Your task to perform on an android device: turn pop-ups off in chrome Image 0: 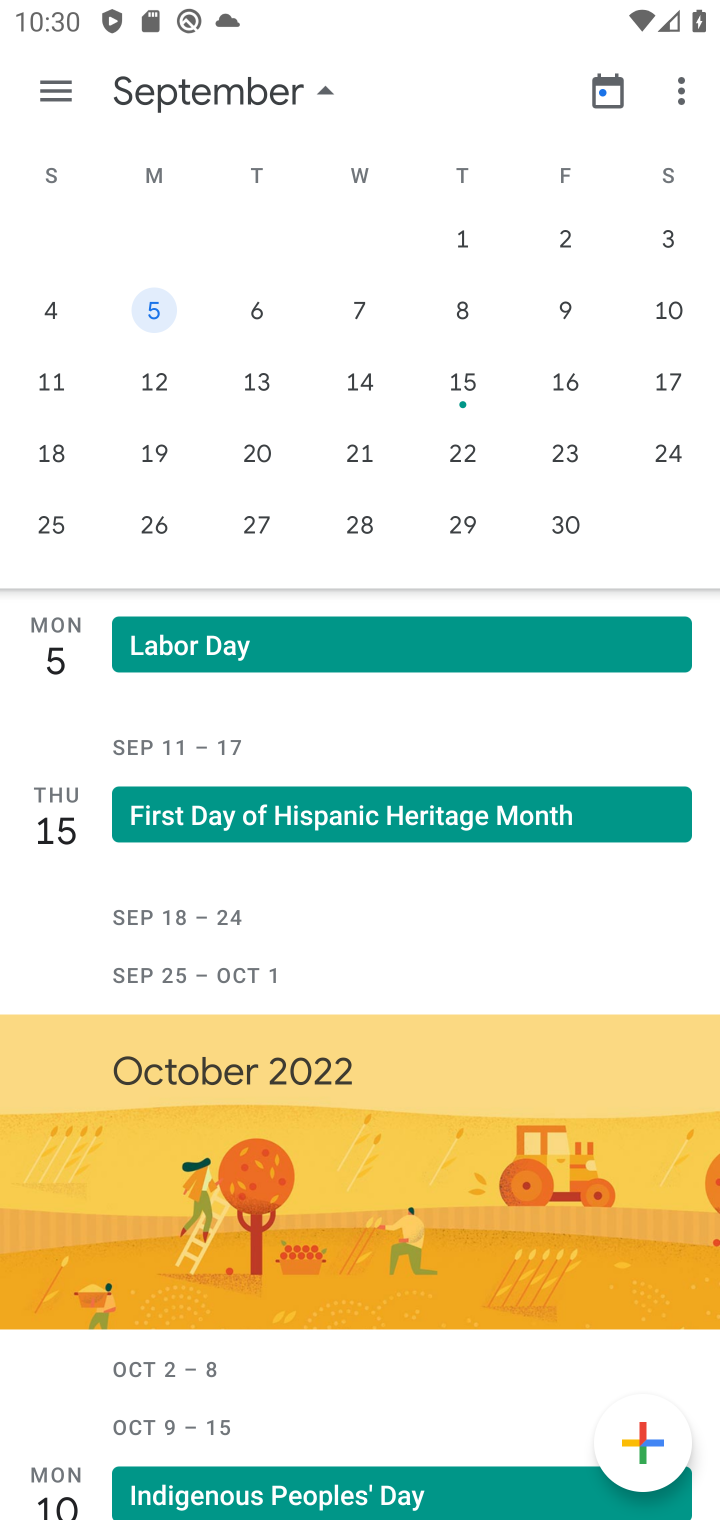
Step 0: press home button
Your task to perform on an android device: turn pop-ups off in chrome Image 1: 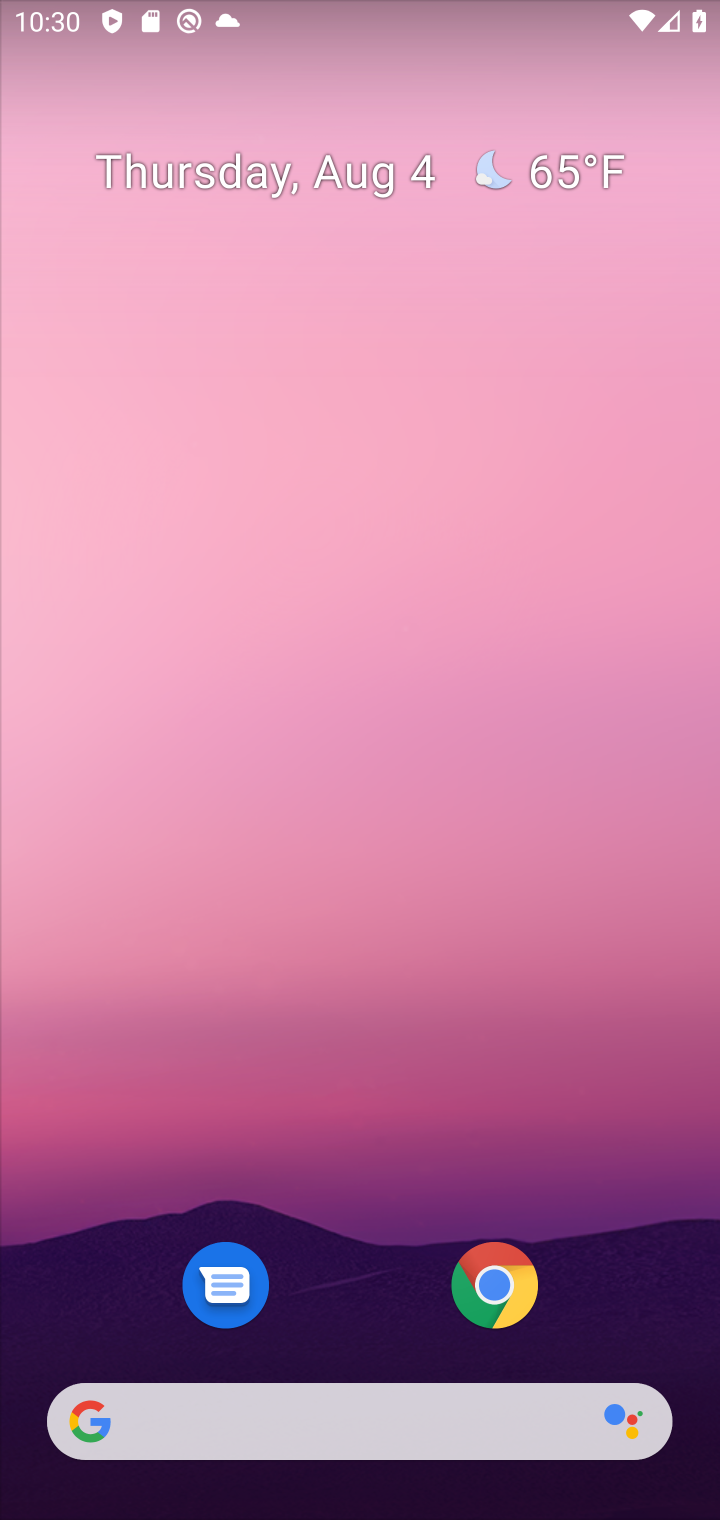
Step 1: drag from (373, 1284) to (395, 579)
Your task to perform on an android device: turn pop-ups off in chrome Image 2: 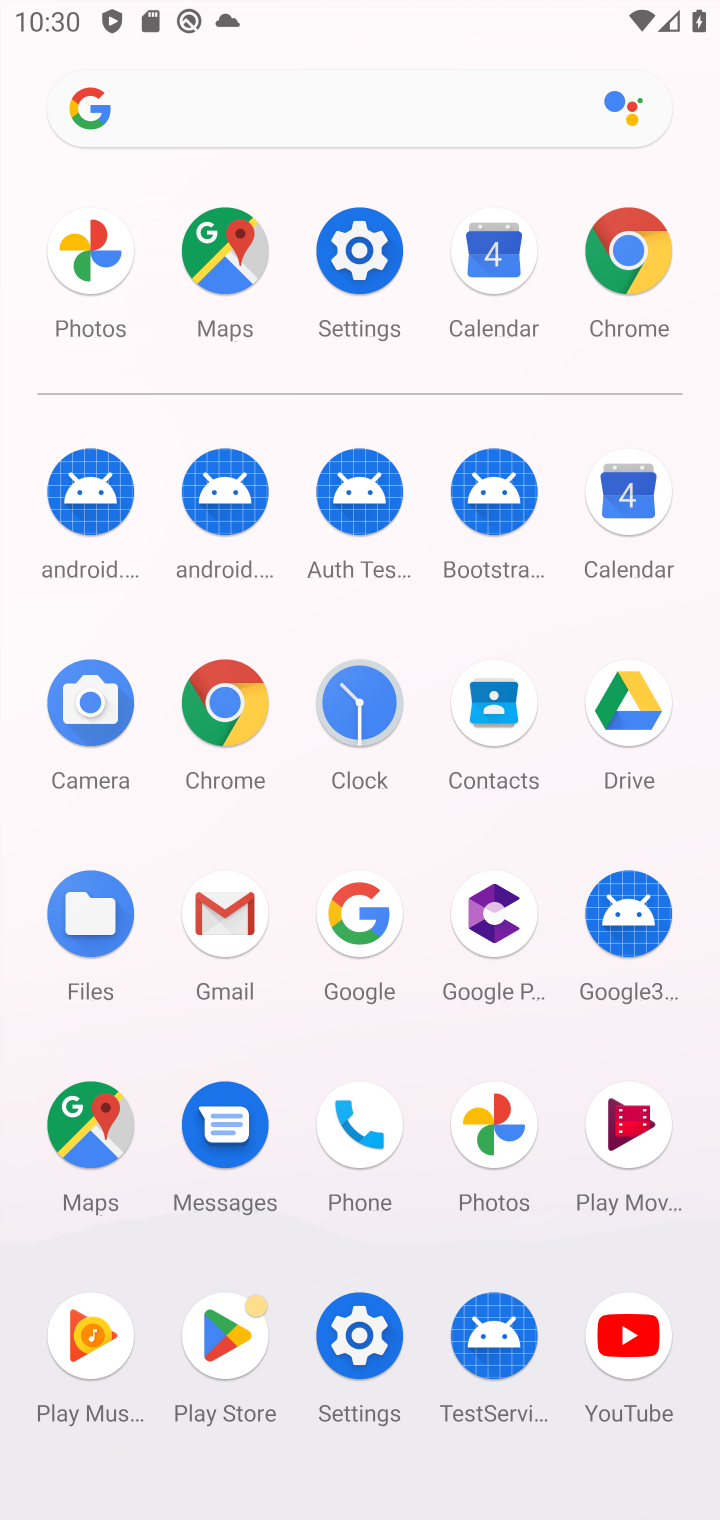
Step 2: click (229, 683)
Your task to perform on an android device: turn pop-ups off in chrome Image 3: 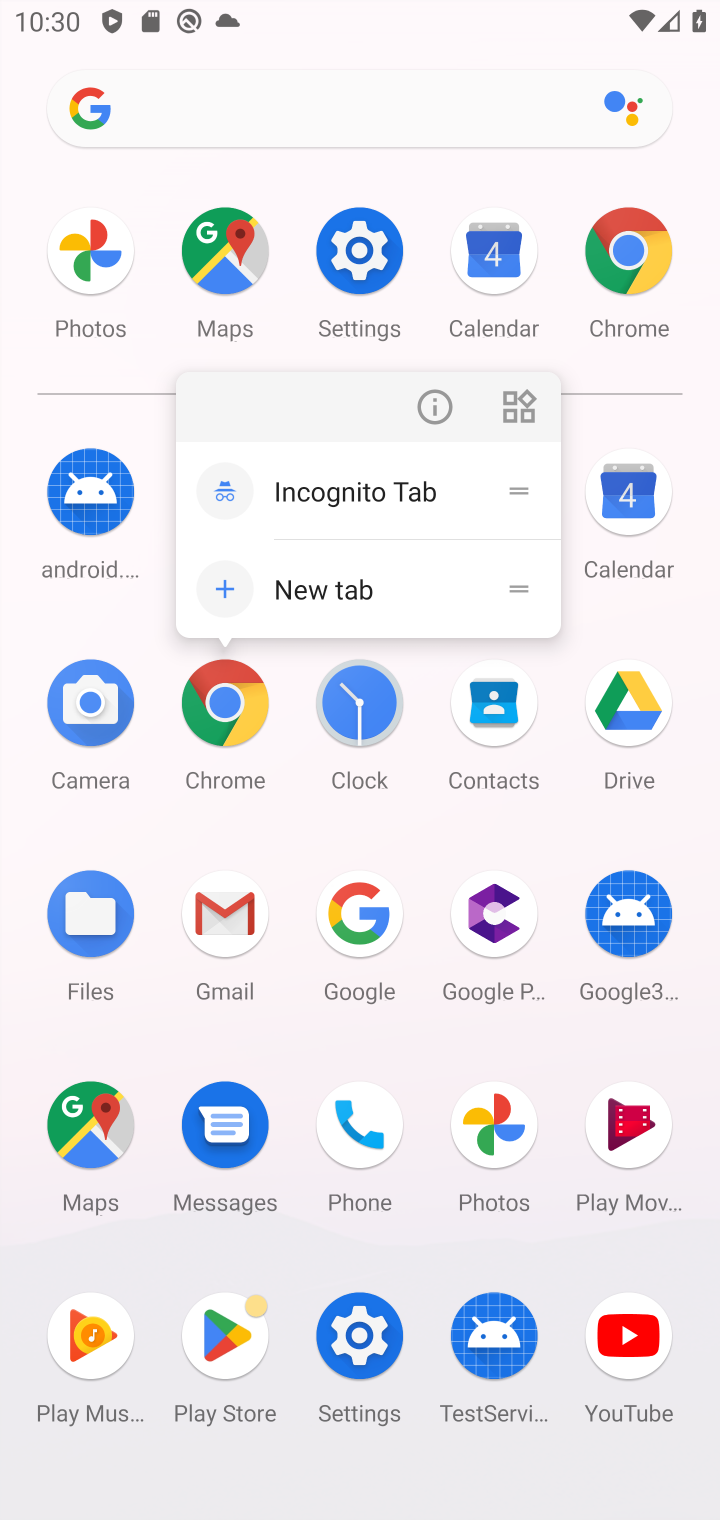
Step 3: click (229, 683)
Your task to perform on an android device: turn pop-ups off in chrome Image 4: 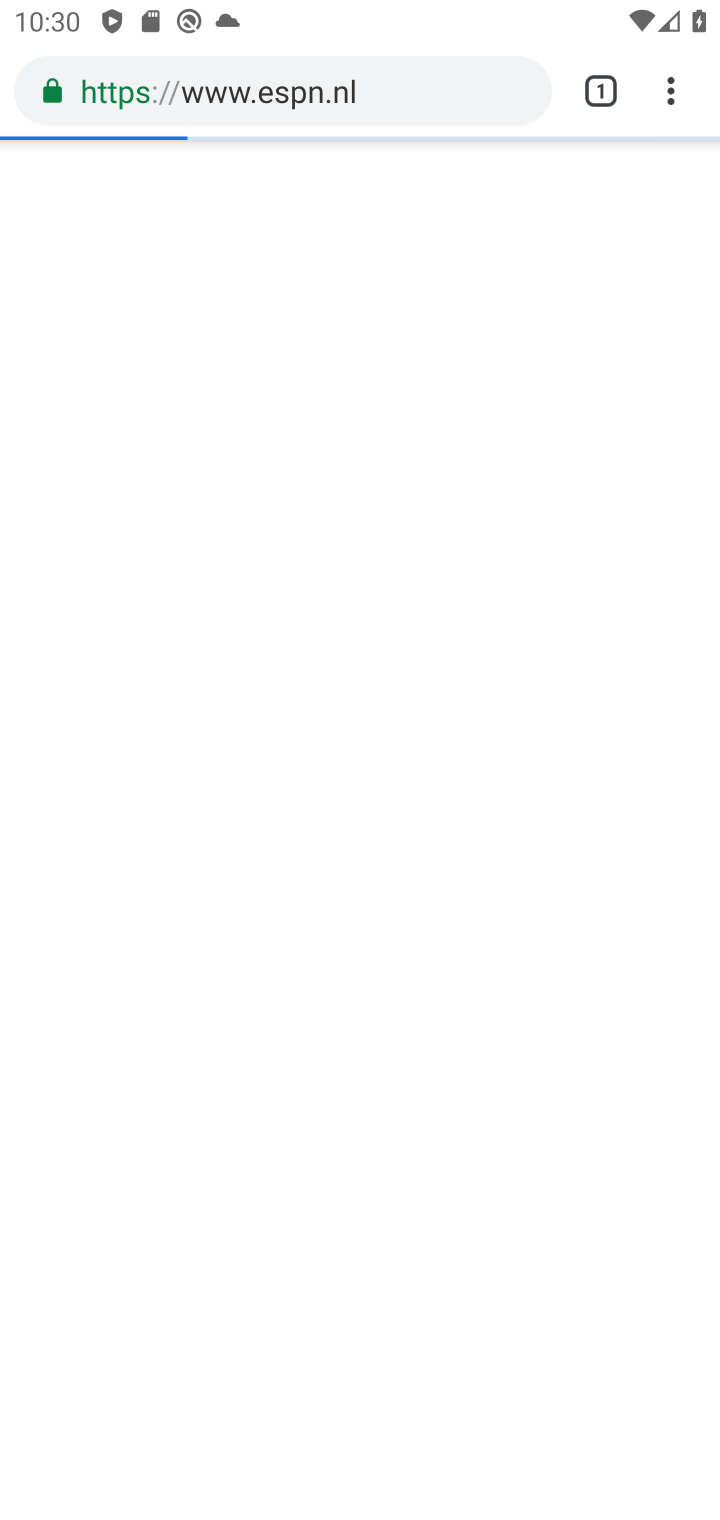
Step 4: drag from (673, 82) to (349, 1092)
Your task to perform on an android device: turn pop-ups off in chrome Image 5: 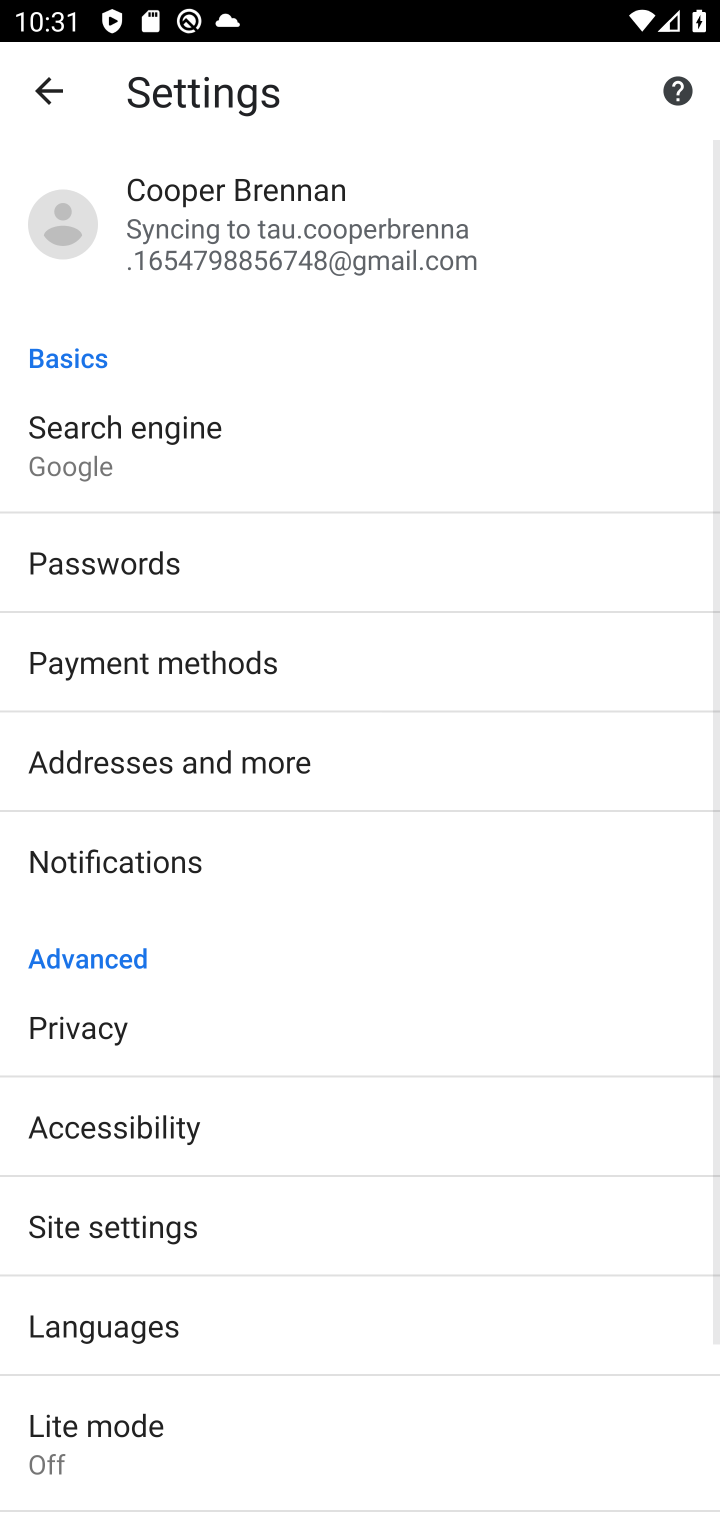
Step 5: click (148, 1211)
Your task to perform on an android device: turn pop-ups off in chrome Image 6: 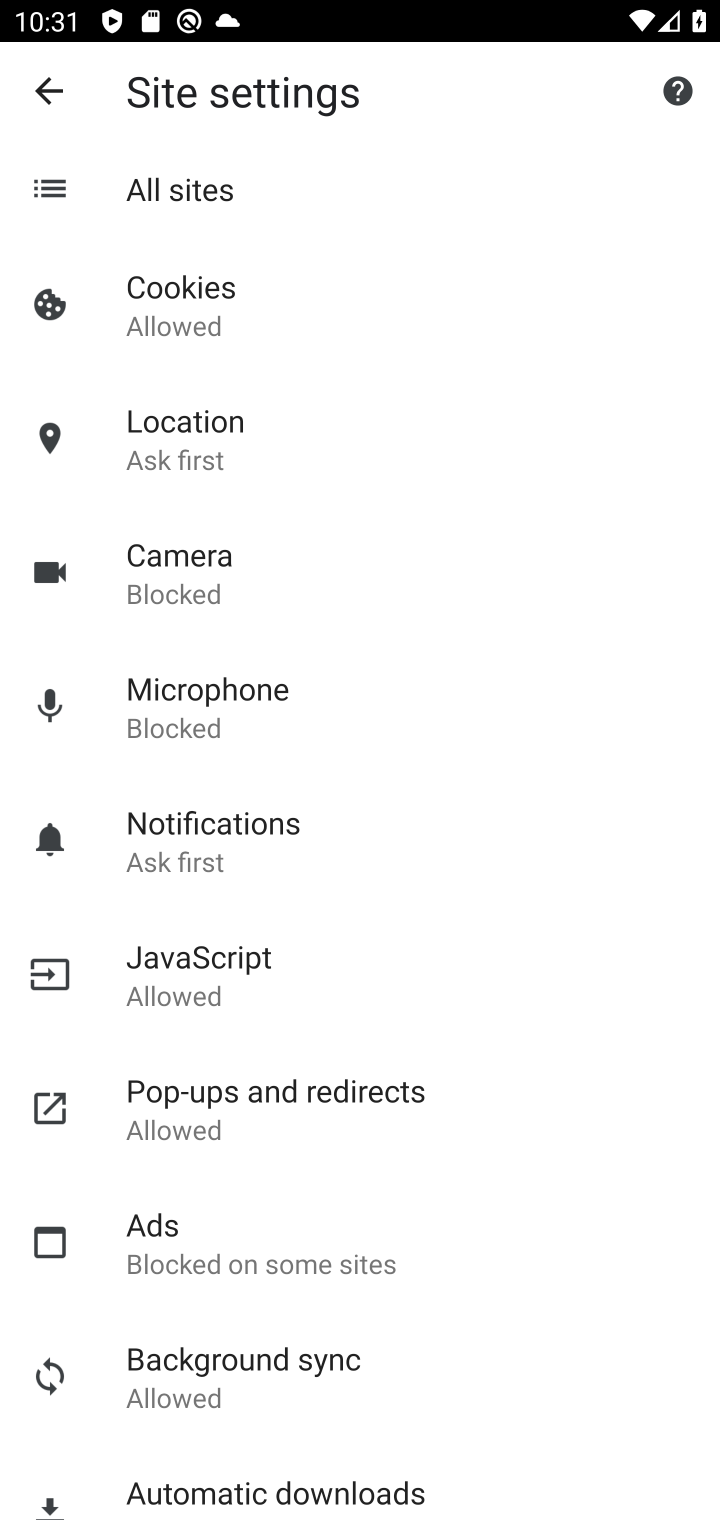
Step 6: click (180, 1099)
Your task to perform on an android device: turn pop-ups off in chrome Image 7: 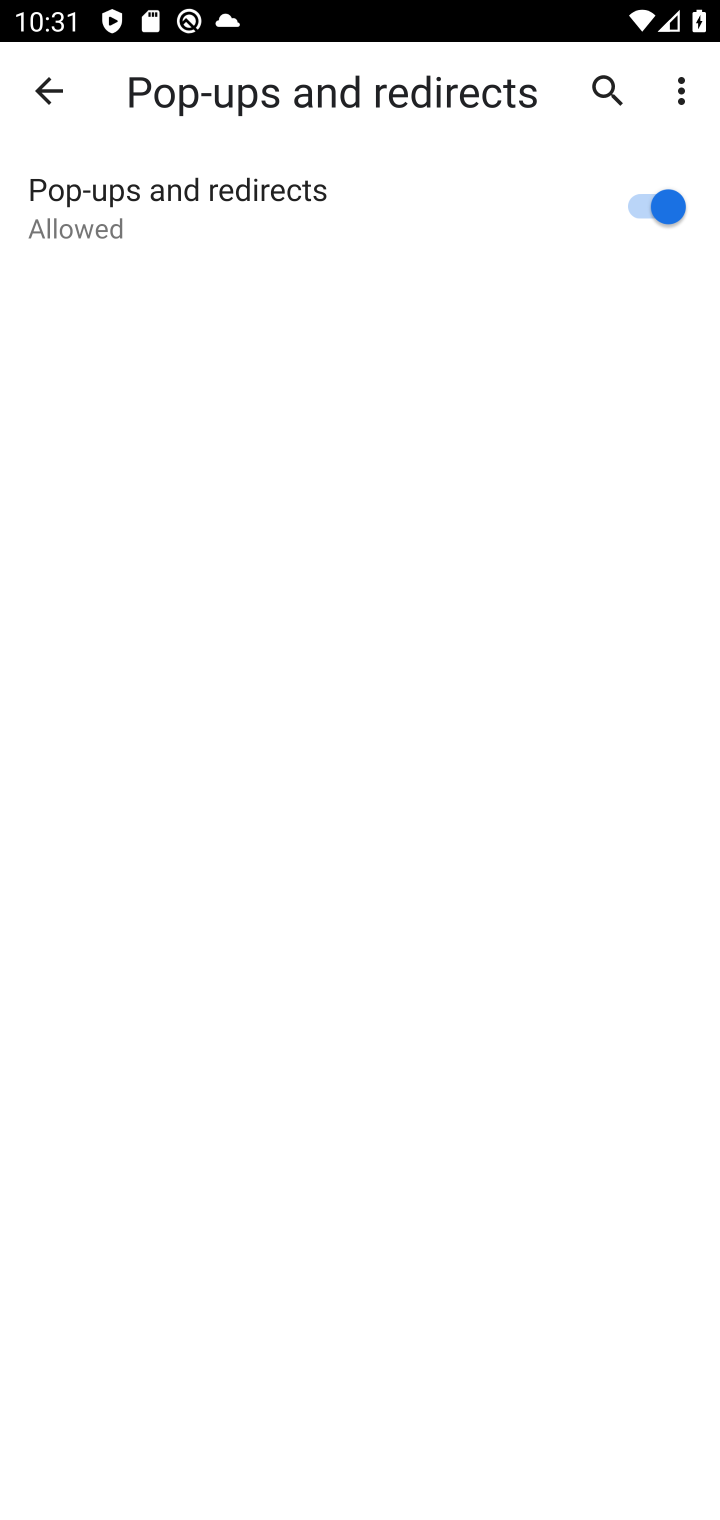
Step 7: click (633, 163)
Your task to perform on an android device: turn pop-ups off in chrome Image 8: 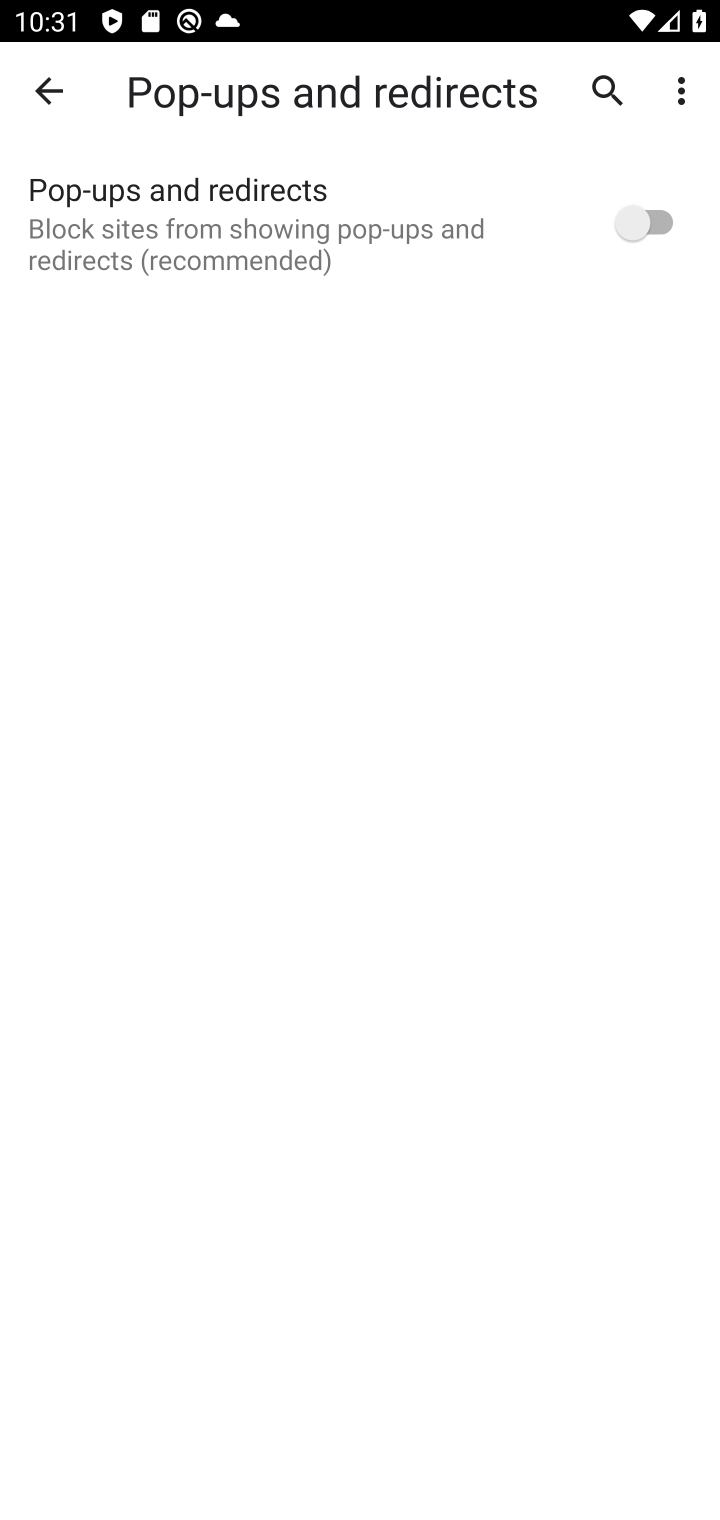
Step 8: task complete